Your task to perform on an android device: Do I have any events today? Image 0: 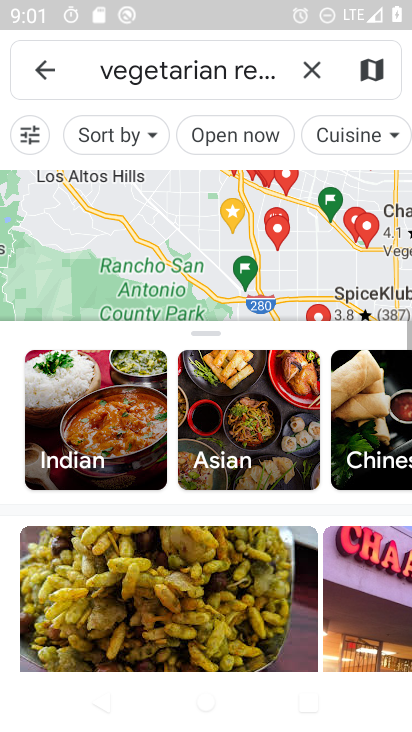
Step 0: press home button
Your task to perform on an android device: Do I have any events today? Image 1: 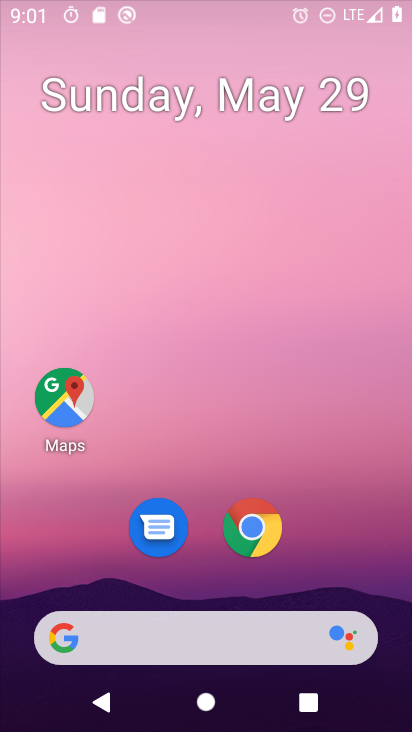
Step 1: drag from (380, 654) to (220, 21)
Your task to perform on an android device: Do I have any events today? Image 2: 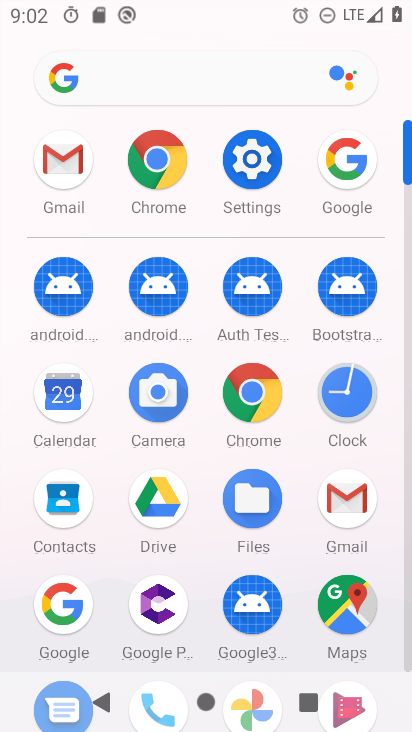
Step 2: click (80, 391)
Your task to perform on an android device: Do I have any events today? Image 3: 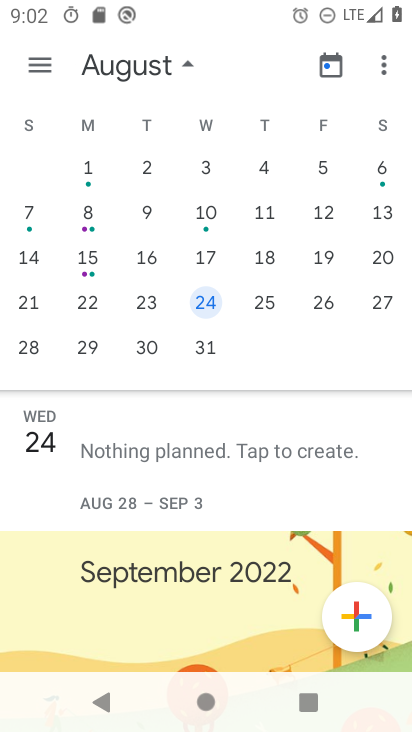
Step 3: click (215, 352)
Your task to perform on an android device: Do I have any events today? Image 4: 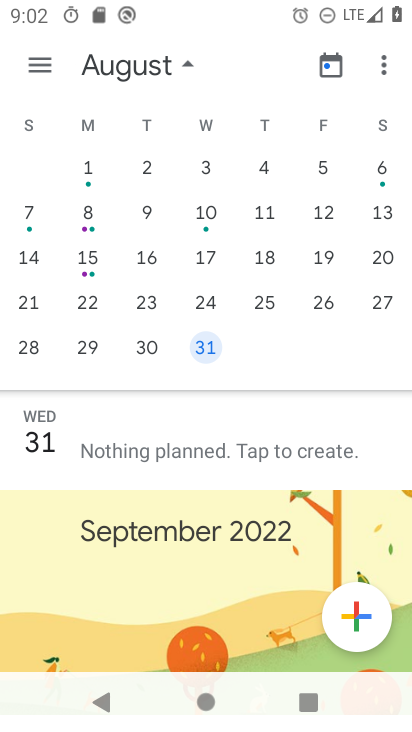
Step 4: click (226, 567)
Your task to perform on an android device: Do I have any events today? Image 5: 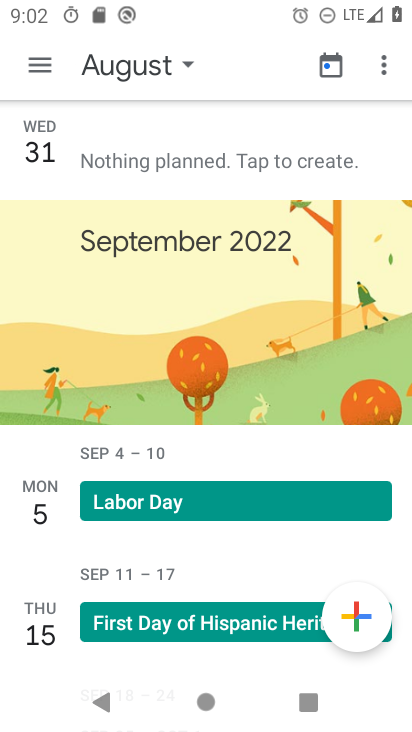
Step 5: click (181, 348)
Your task to perform on an android device: Do I have any events today? Image 6: 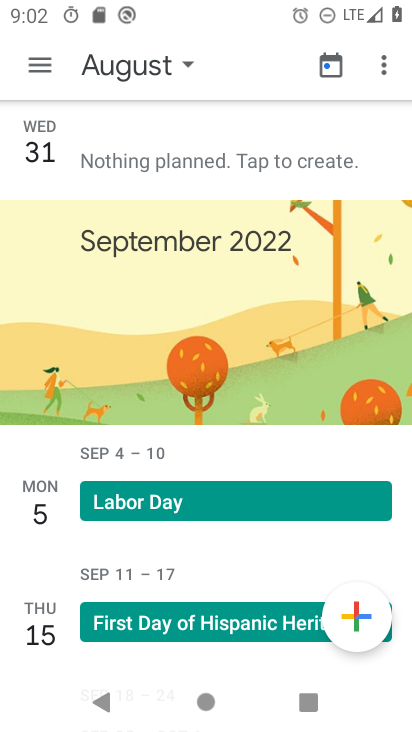
Step 6: task complete